Your task to perform on an android device: Open settings Image 0: 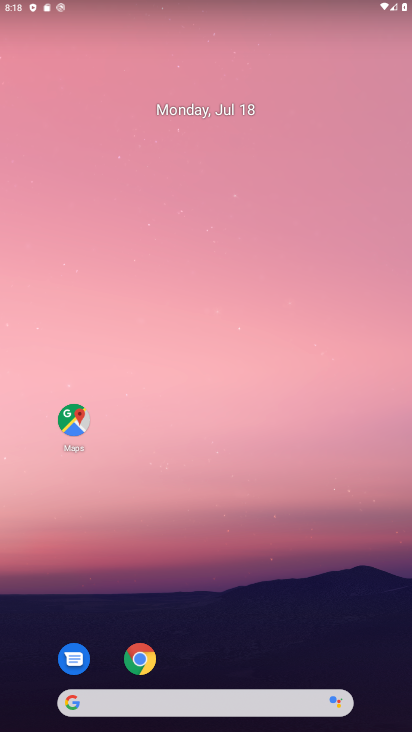
Step 0: drag from (232, 511) to (119, 5)
Your task to perform on an android device: Open settings Image 1: 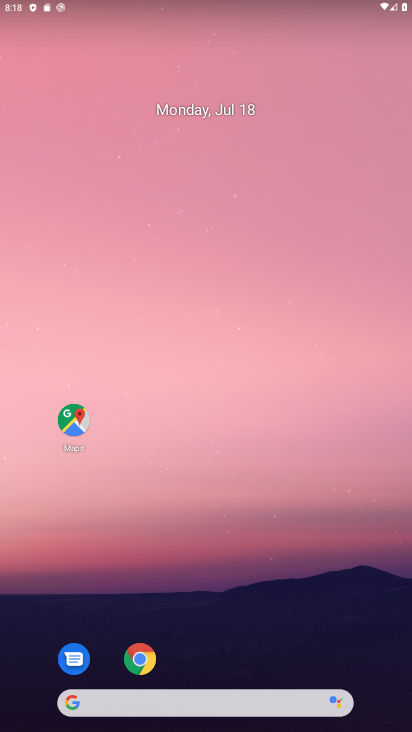
Step 1: drag from (227, 386) to (180, 165)
Your task to perform on an android device: Open settings Image 2: 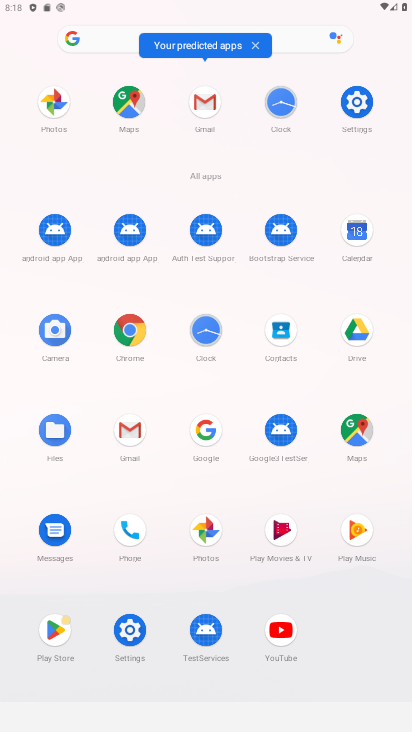
Step 2: click (127, 646)
Your task to perform on an android device: Open settings Image 3: 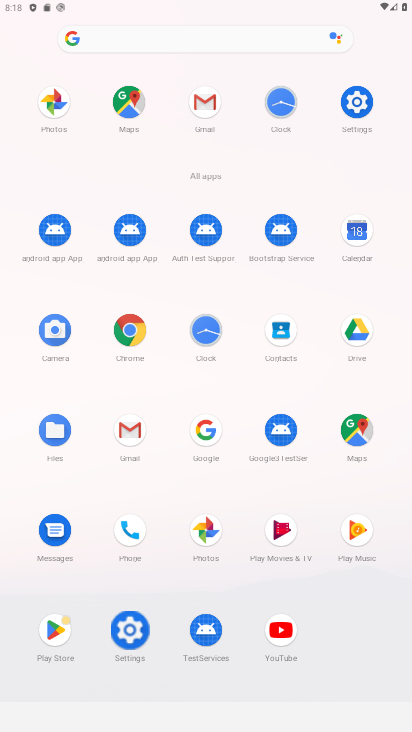
Step 3: click (125, 633)
Your task to perform on an android device: Open settings Image 4: 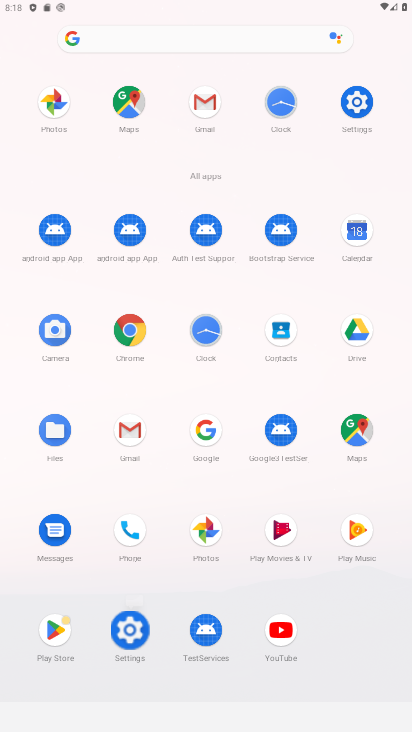
Step 4: click (125, 633)
Your task to perform on an android device: Open settings Image 5: 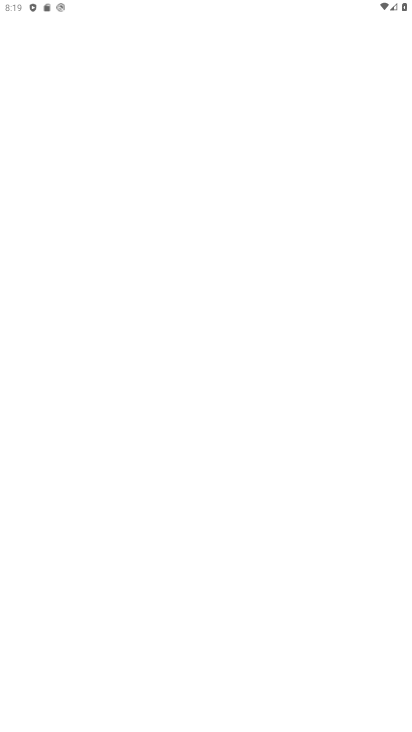
Step 5: click (124, 638)
Your task to perform on an android device: Open settings Image 6: 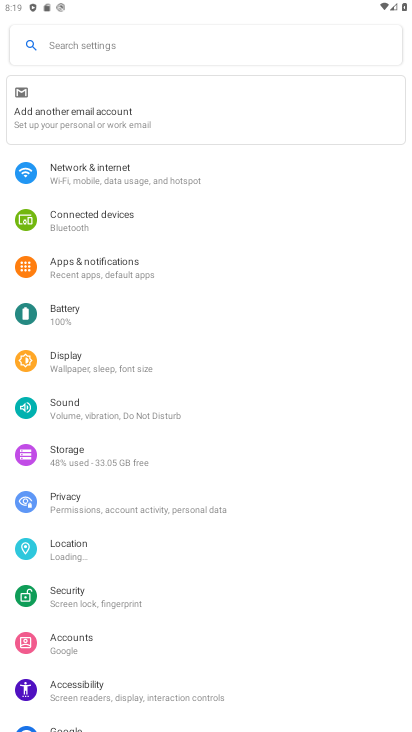
Step 6: task complete